Your task to perform on an android device: open chrome and create a bookmark for the current page Image 0: 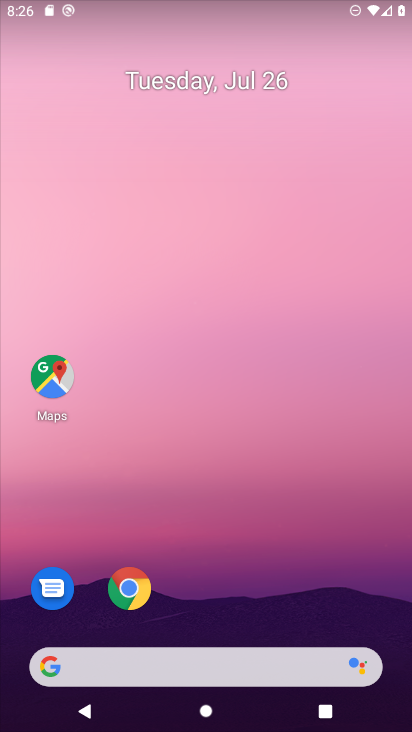
Step 0: click (131, 595)
Your task to perform on an android device: open chrome and create a bookmark for the current page Image 1: 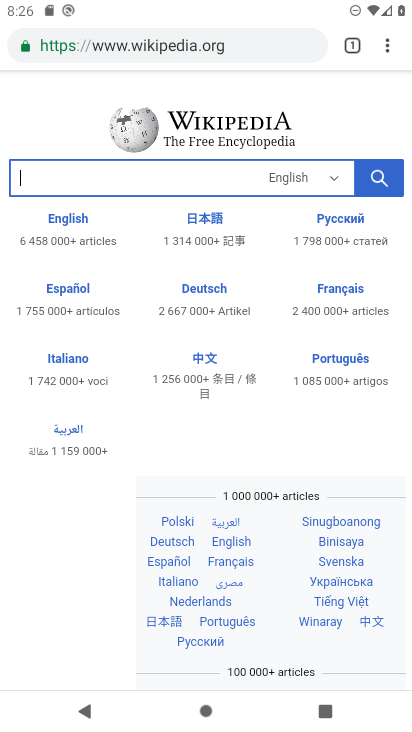
Step 1: click (389, 45)
Your task to perform on an android device: open chrome and create a bookmark for the current page Image 2: 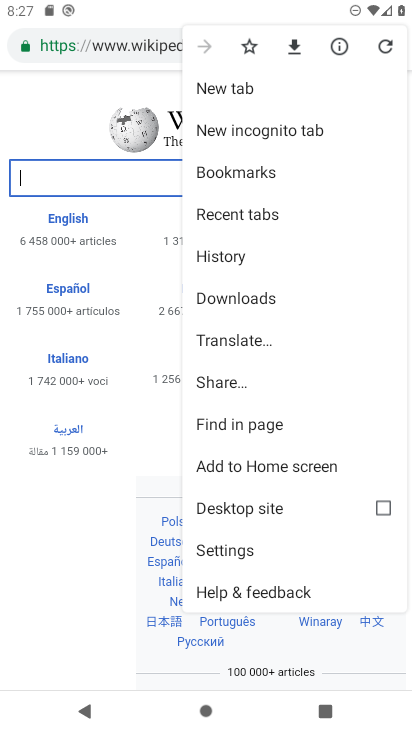
Step 2: click (255, 50)
Your task to perform on an android device: open chrome and create a bookmark for the current page Image 3: 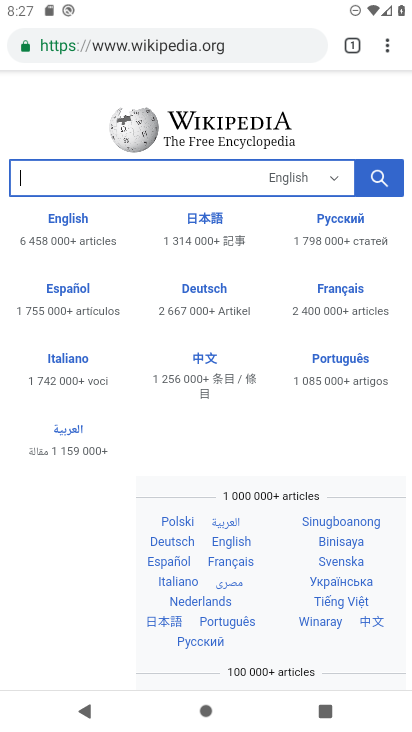
Step 3: task complete